Your task to perform on an android device: Go to wifi settings Image 0: 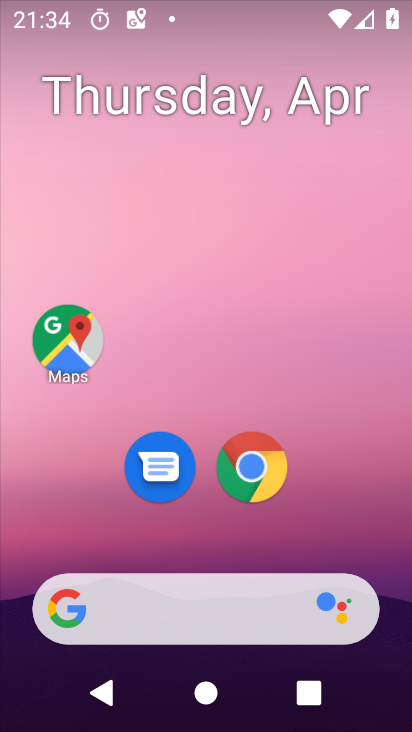
Step 0: drag from (212, 494) to (267, 5)
Your task to perform on an android device: Go to wifi settings Image 1: 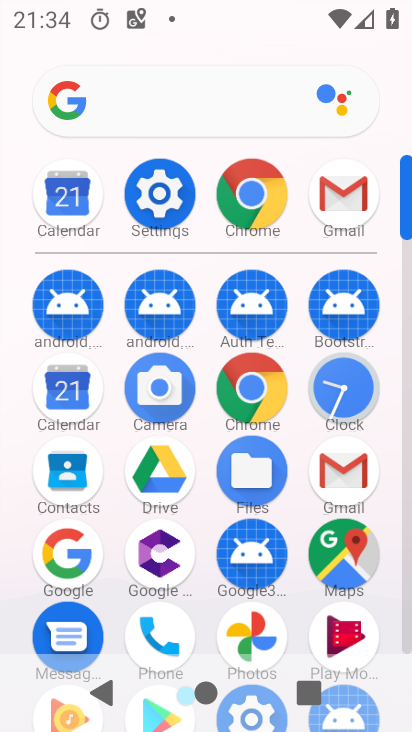
Step 1: click (165, 212)
Your task to perform on an android device: Go to wifi settings Image 2: 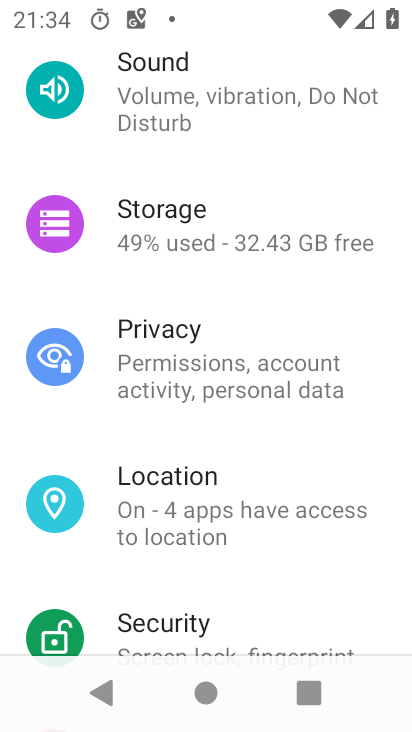
Step 2: drag from (198, 191) to (133, 723)
Your task to perform on an android device: Go to wifi settings Image 3: 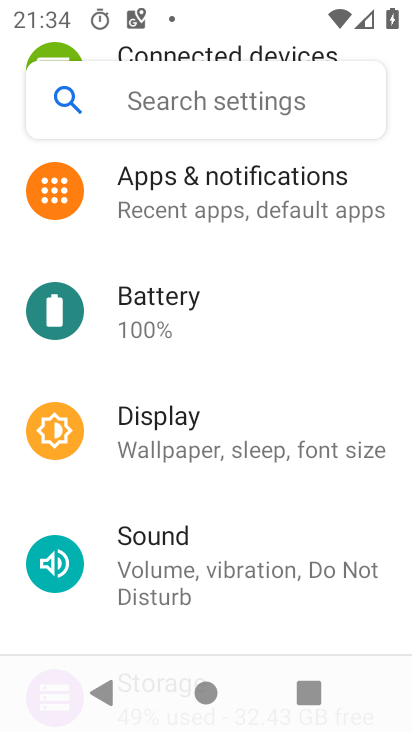
Step 3: drag from (189, 173) to (121, 724)
Your task to perform on an android device: Go to wifi settings Image 4: 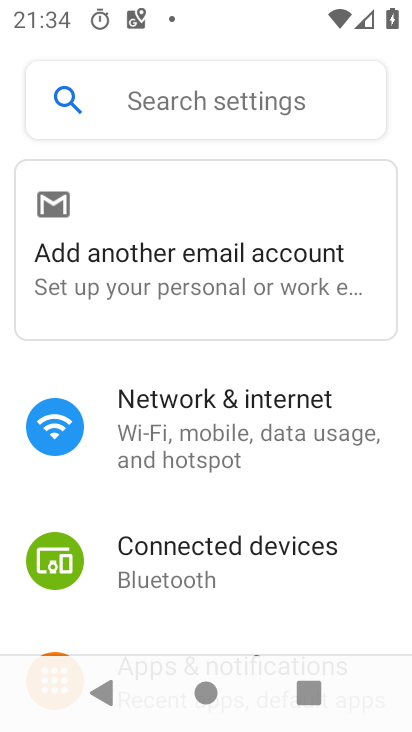
Step 4: click (161, 456)
Your task to perform on an android device: Go to wifi settings Image 5: 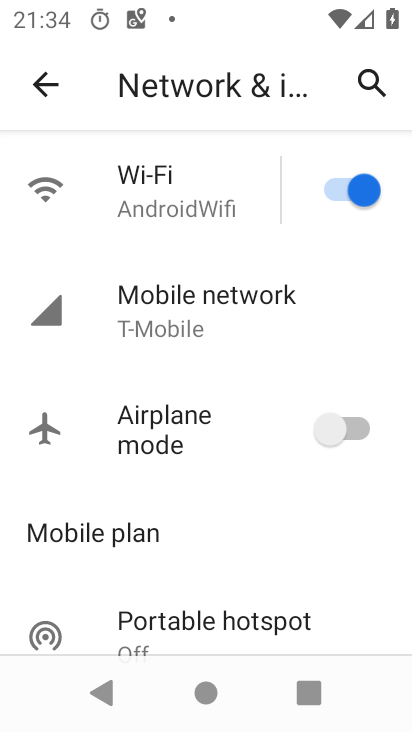
Step 5: click (169, 187)
Your task to perform on an android device: Go to wifi settings Image 6: 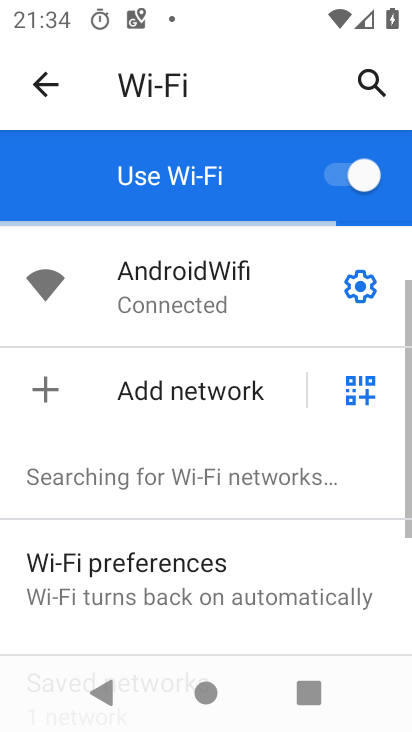
Step 6: task complete